Your task to perform on an android device: turn off location Image 0: 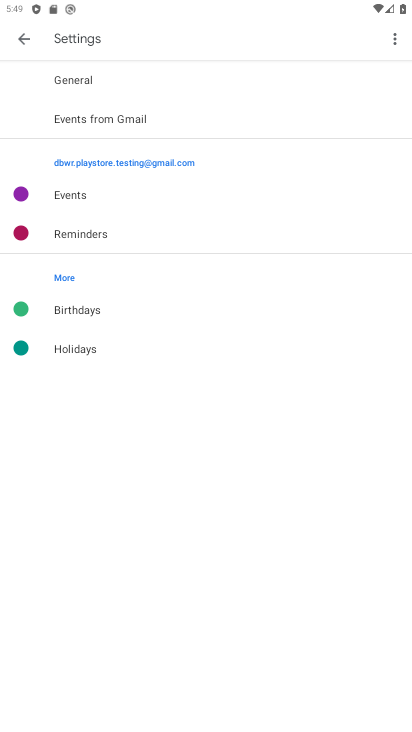
Step 0: press home button
Your task to perform on an android device: turn off location Image 1: 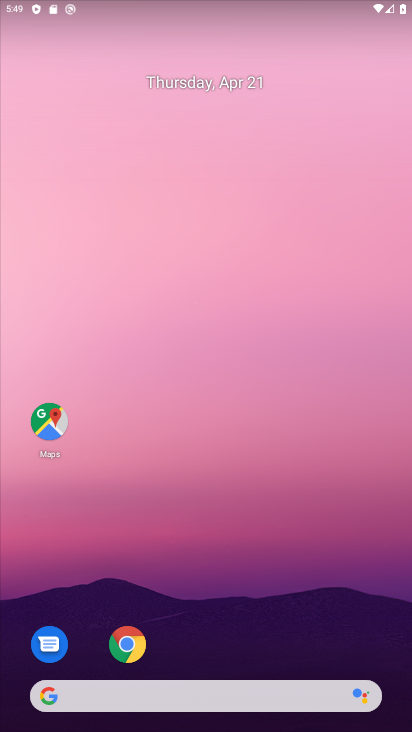
Step 1: drag from (311, 616) to (299, 60)
Your task to perform on an android device: turn off location Image 2: 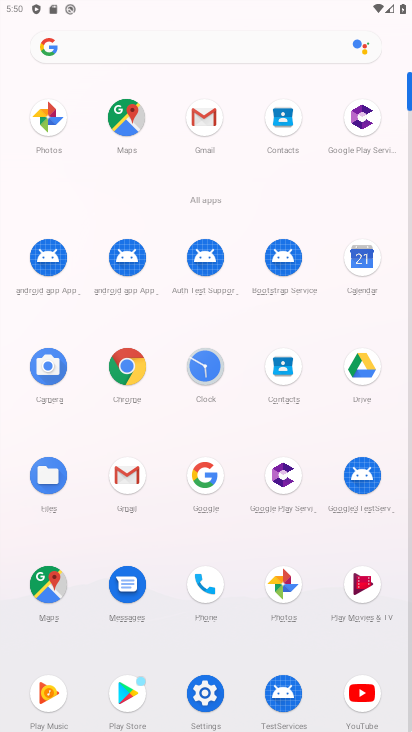
Step 2: click (204, 689)
Your task to perform on an android device: turn off location Image 3: 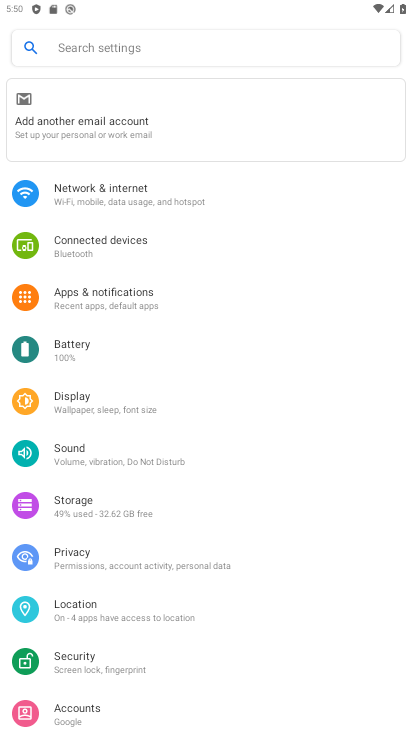
Step 3: click (83, 615)
Your task to perform on an android device: turn off location Image 4: 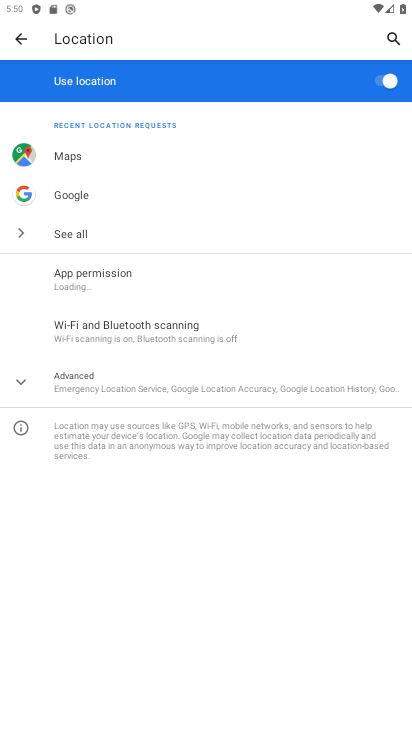
Step 4: click (384, 83)
Your task to perform on an android device: turn off location Image 5: 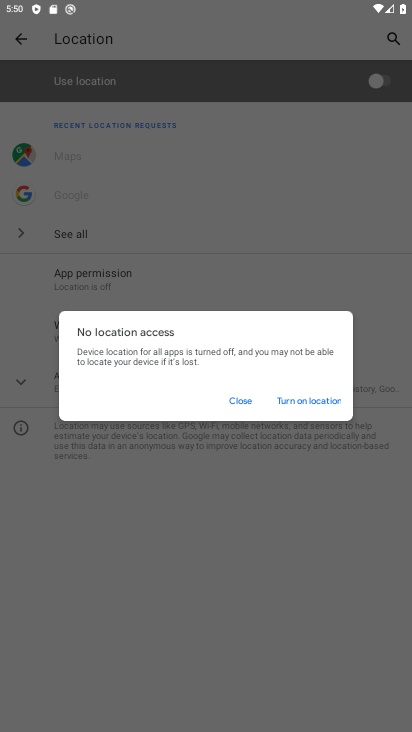
Step 5: click (244, 399)
Your task to perform on an android device: turn off location Image 6: 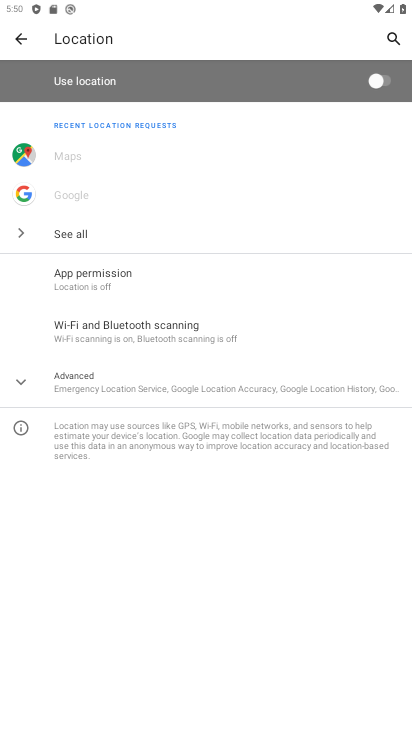
Step 6: task complete